Your task to perform on an android device: Go to notification settings Image 0: 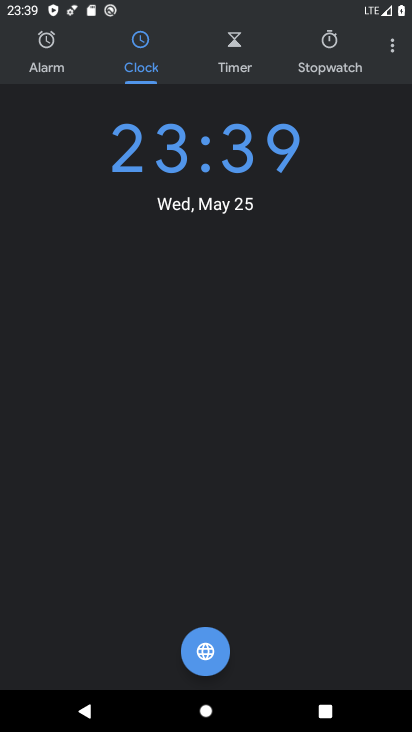
Step 0: press home button
Your task to perform on an android device: Go to notification settings Image 1: 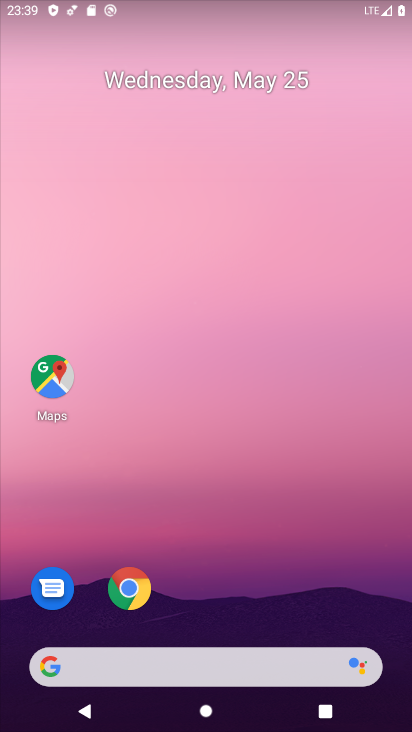
Step 1: drag from (248, 568) to (204, 277)
Your task to perform on an android device: Go to notification settings Image 2: 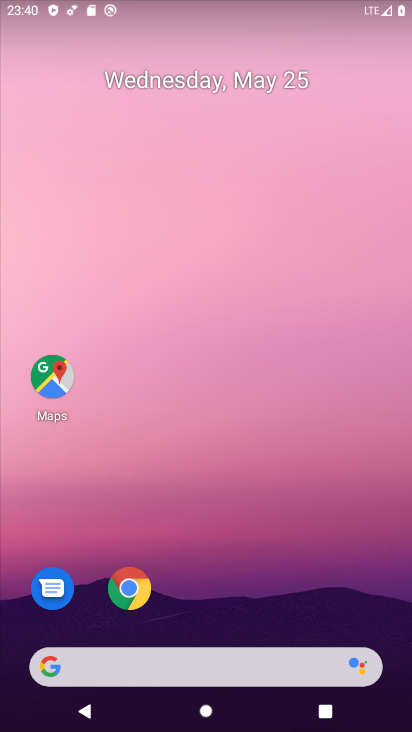
Step 2: drag from (202, 560) to (202, 103)
Your task to perform on an android device: Go to notification settings Image 3: 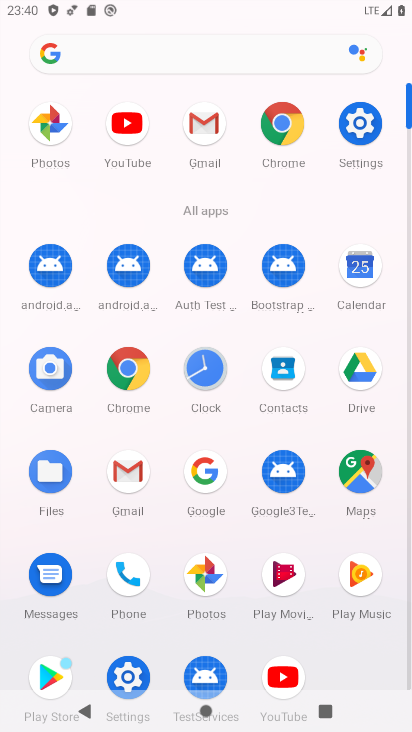
Step 3: click (356, 128)
Your task to perform on an android device: Go to notification settings Image 4: 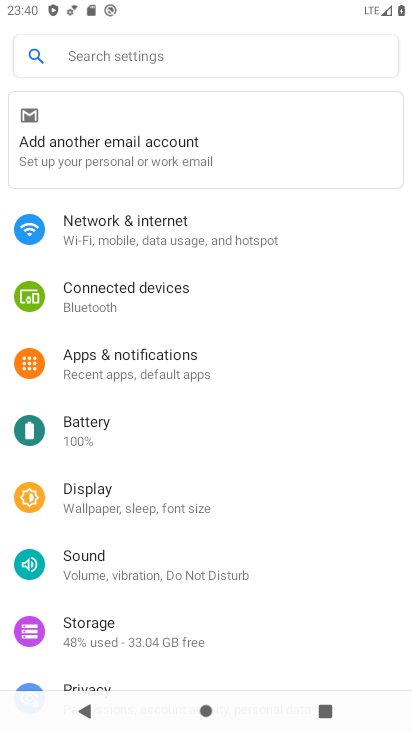
Step 4: click (130, 353)
Your task to perform on an android device: Go to notification settings Image 5: 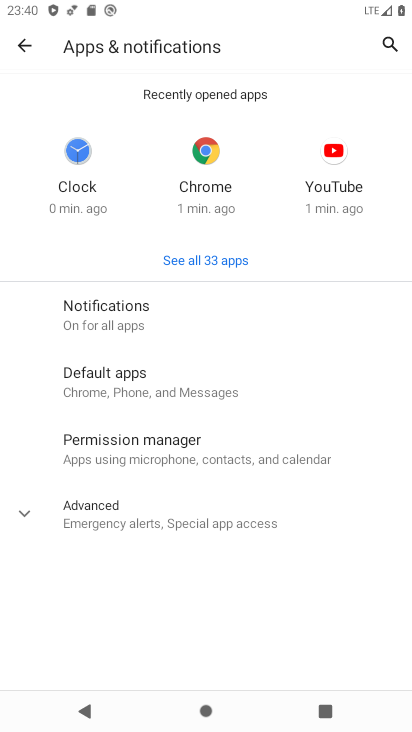
Step 5: task complete